Your task to perform on an android device: Open settings Image 0: 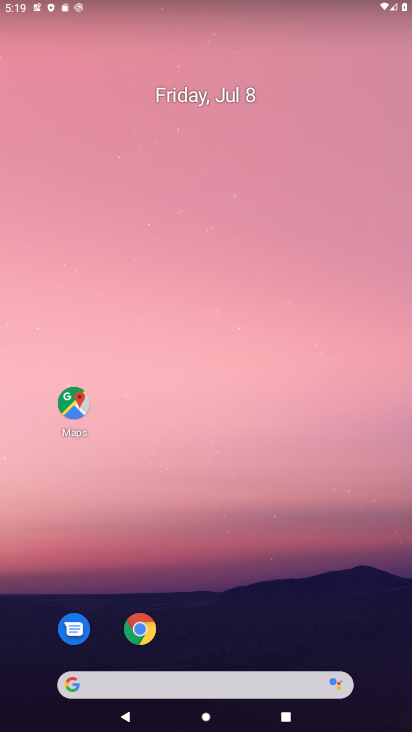
Step 0: press home button
Your task to perform on an android device: Open settings Image 1: 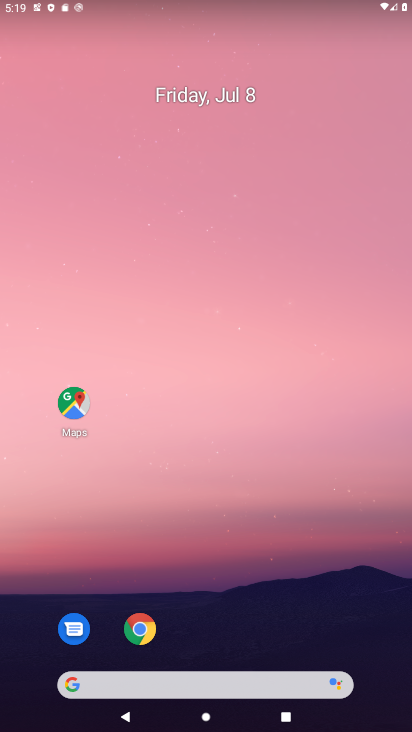
Step 1: drag from (279, 642) to (261, 77)
Your task to perform on an android device: Open settings Image 2: 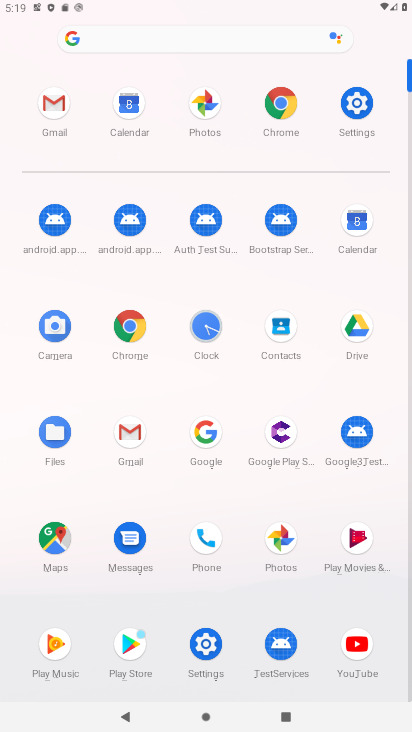
Step 2: click (358, 113)
Your task to perform on an android device: Open settings Image 3: 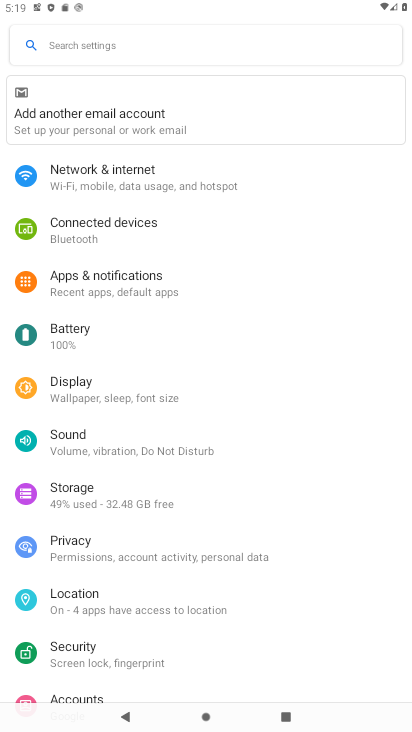
Step 3: task complete